Your task to perform on an android device: Open the calendar and show me this week's events? Image 0: 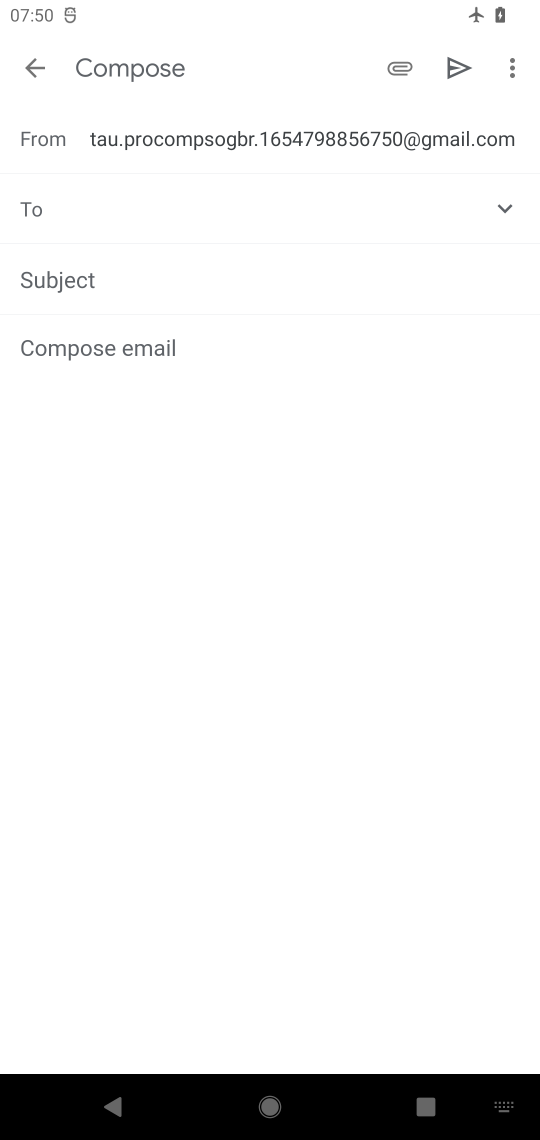
Step 0: press home button
Your task to perform on an android device: Open the calendar and show me this week's events? Image 1: 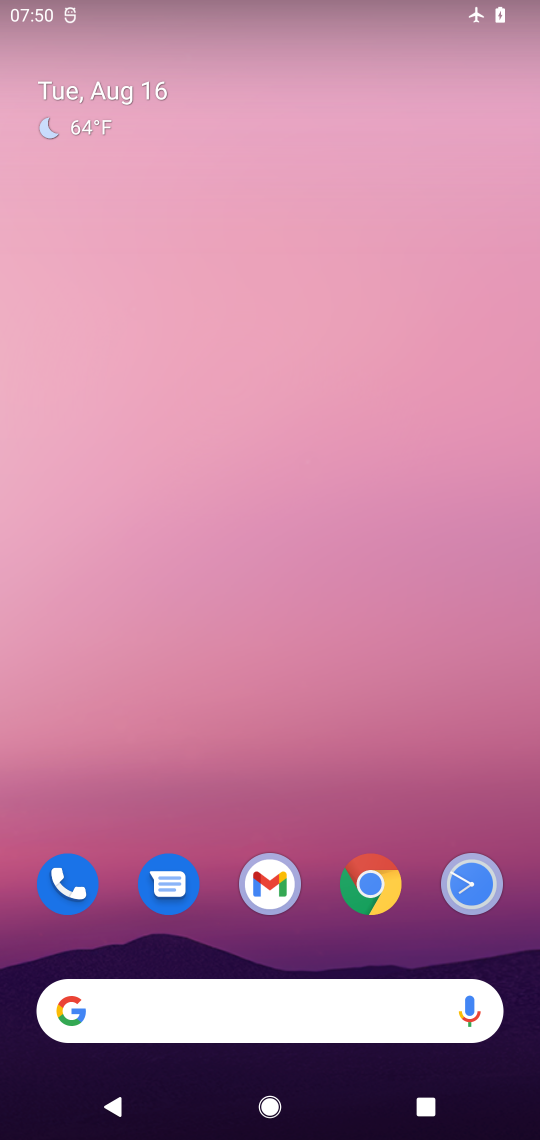
Step 1: press home button
Your task to perform on an android device: Open the calendar and show me this week's events? Image 2: 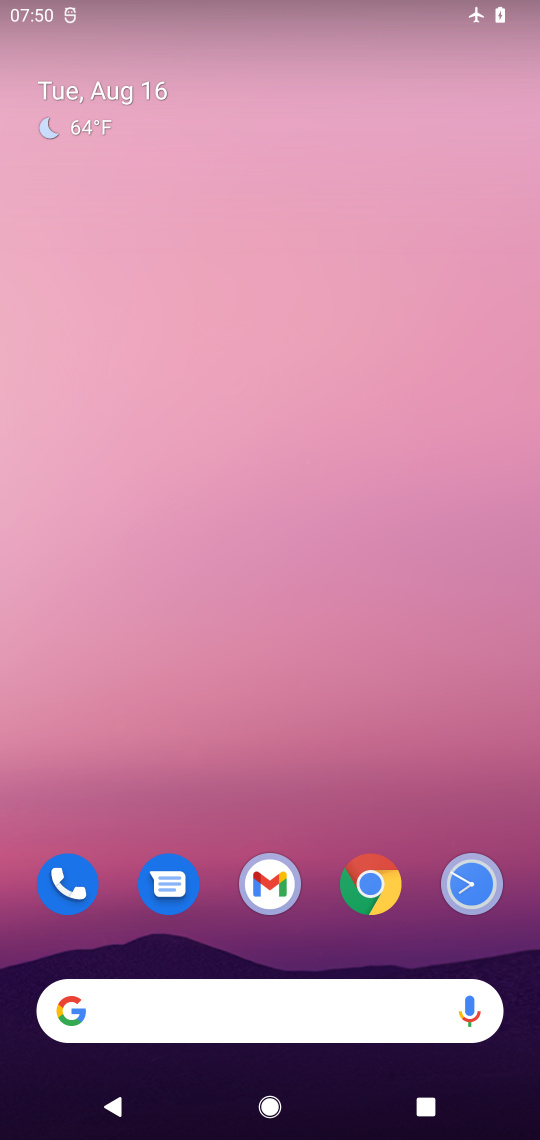
Step 2: drag from (276, 736) to (358, 3)
Your task to perform on an android device: Open the calendar and show me this week's events? Image 3: 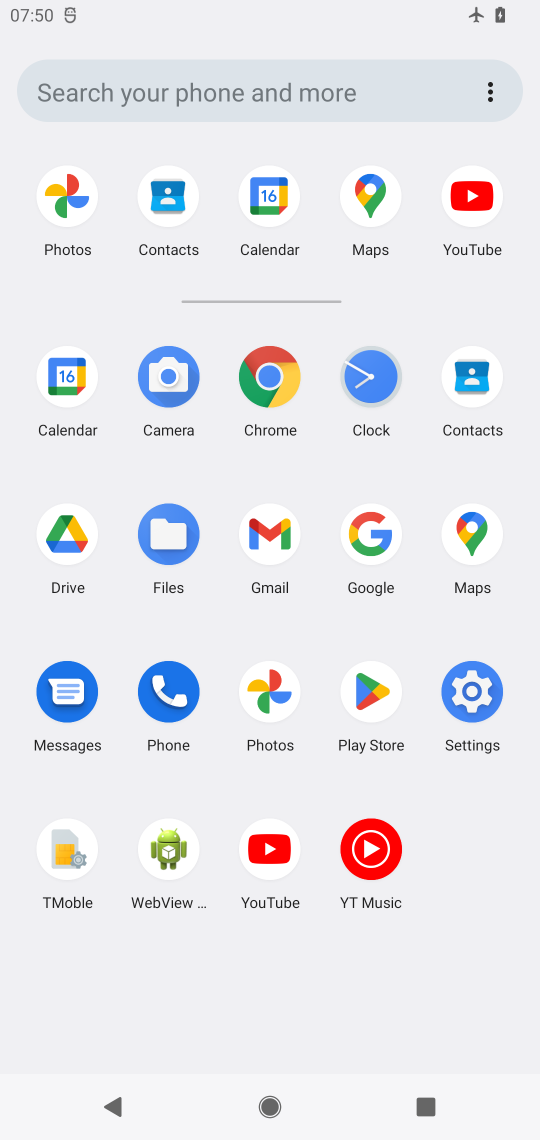
Step 3: click (62, 366)
Your task to perform on an android device: Open the calendar and show me this week's events? Image 4: 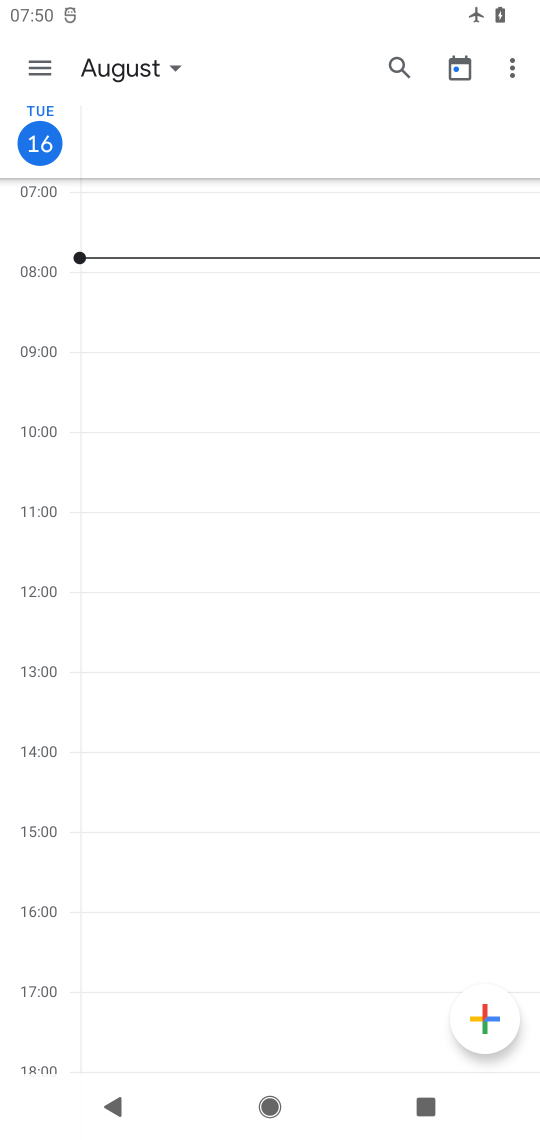
Step 4: click (47, 55)
Your task to perform on an android device: Open the calendar and show me this week's events? Image 5: 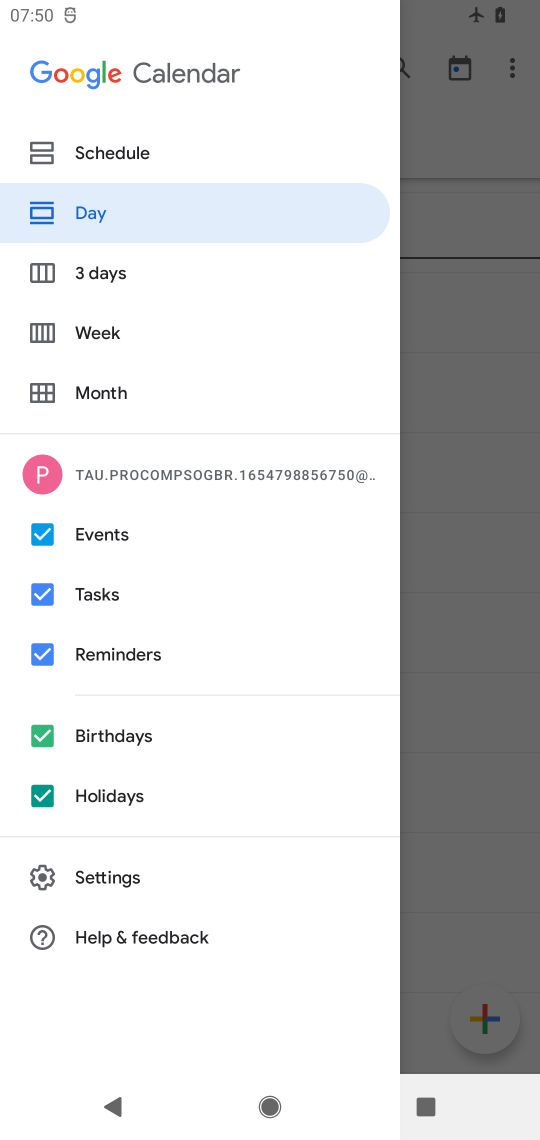
Step 5: click (101, 336)
Your task to perform on an android device: Open the calendar and show me this week's events? Image 6: 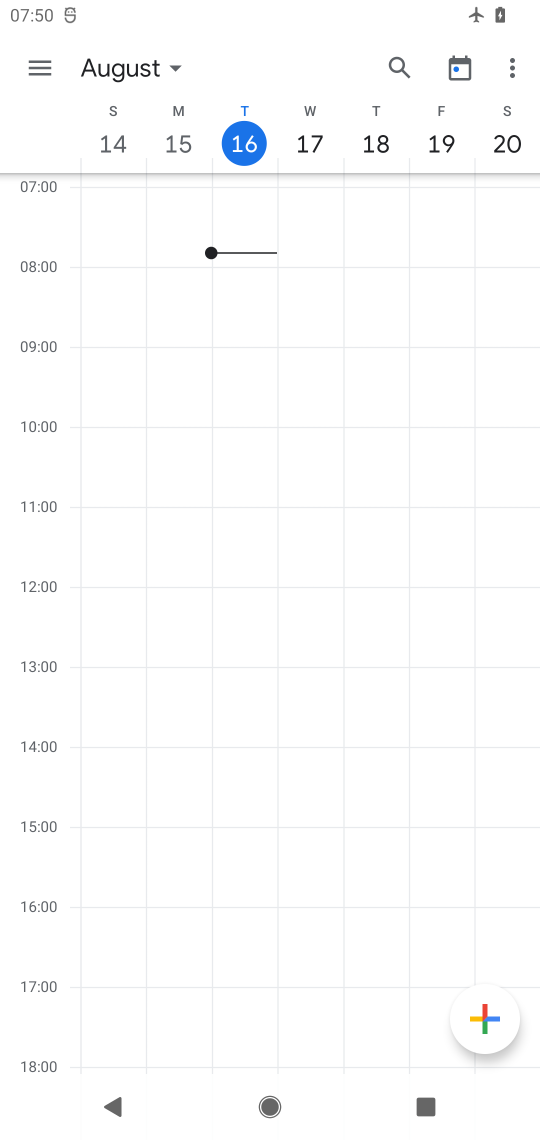
Step 6: click (38, 77)
Your task to perform on an android device: Open the calendar and show me this week's events? Image 7: 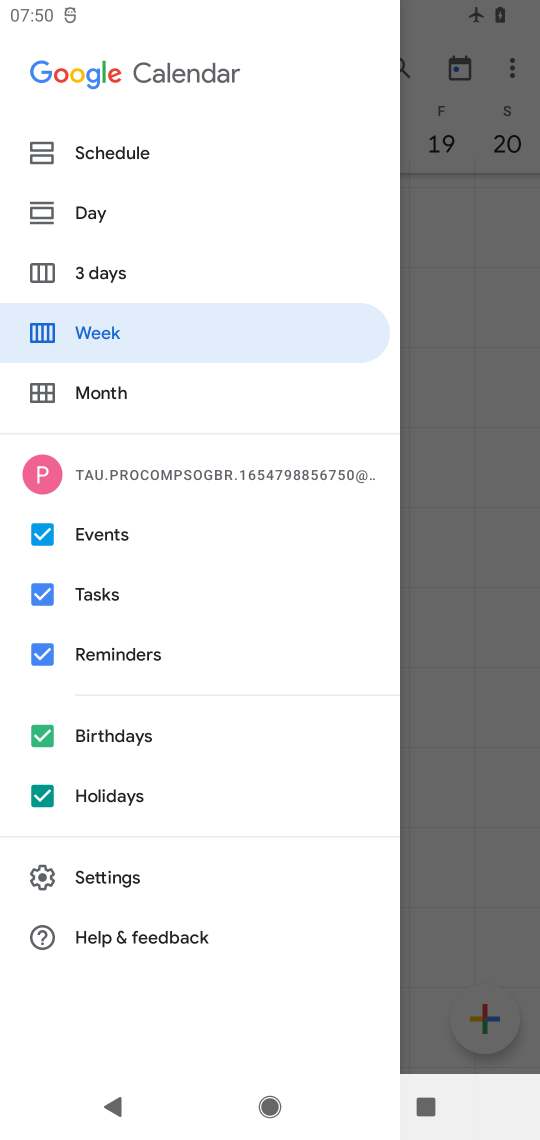
Step 7: click (112, 138)
Your task to perform on an android device: Open the calendar and show me this week's events? Image 8: 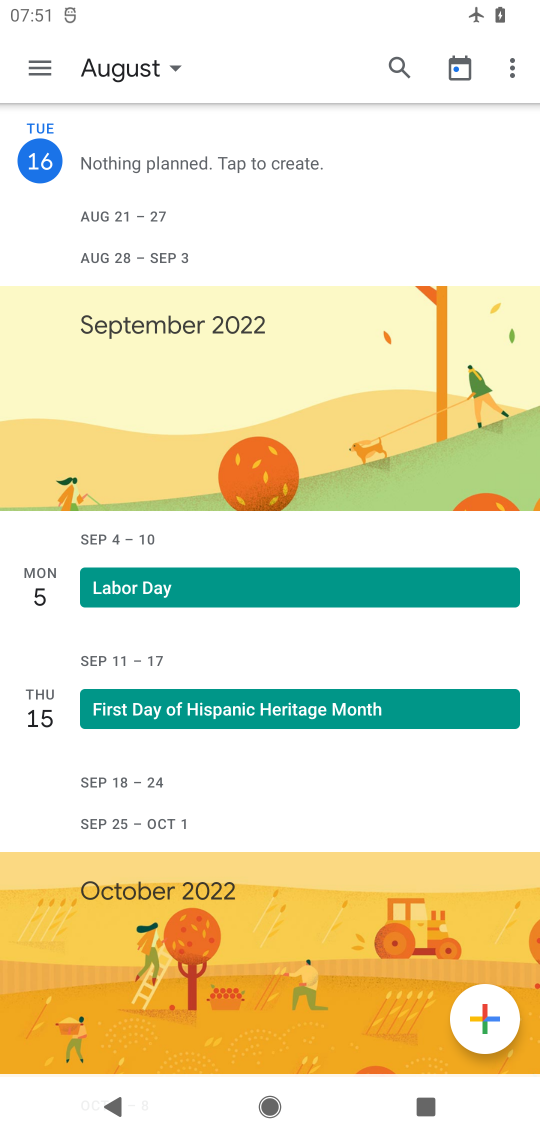
Step 8: task complete